Your task to perform on an android device: Do I have any events this weekend? Image 0: 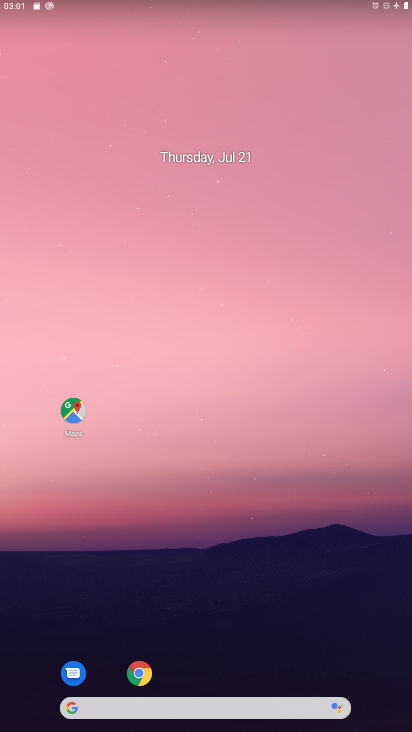
Step 0: drag from (169, 664) to (173, 149)
Your task to perform on an android device: Do I have any events this weekend? Image 1: 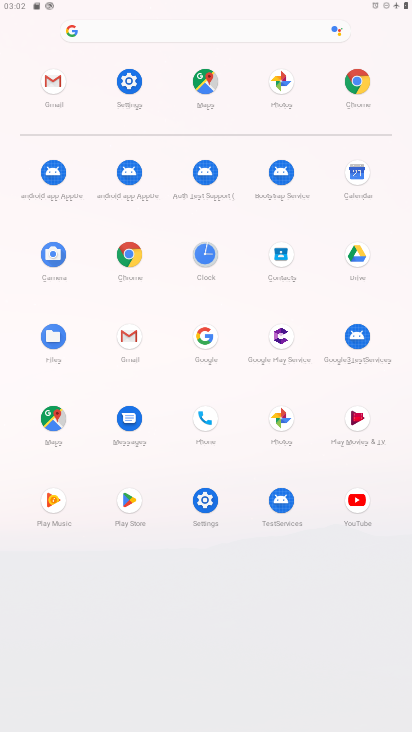
Step 1: click (362, 174)
Your task to perform on an android device: Do I have any events this weekend? Image 2: 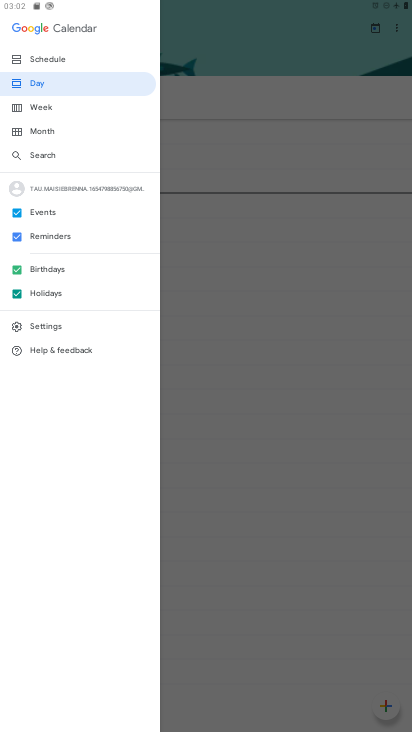
Step 2: click (50, 110)
Your task to perform on an android device: Do I have any events this weekend? Image 3: 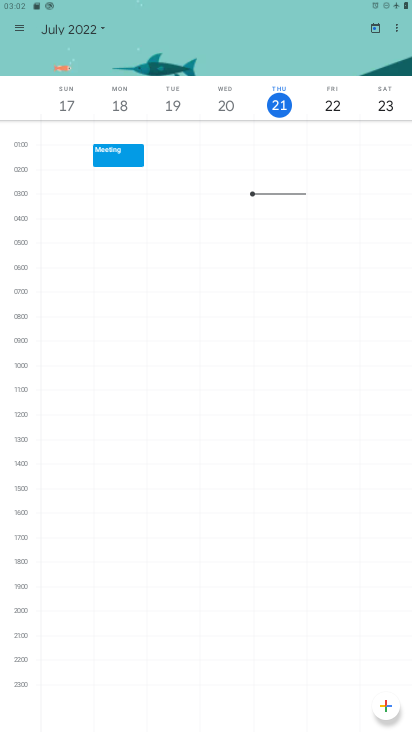
Step 3: task complete